Your task to perform on an android device: turn on showing notifications on the lock screen Image 0: 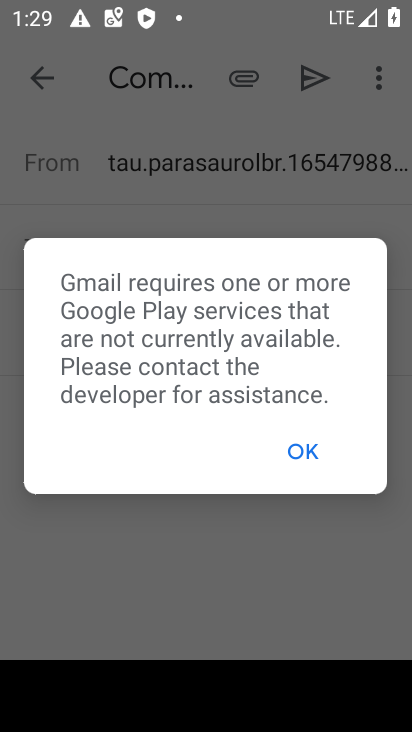
Step 0: click (295, 445)
Your task to perform on an android device: turn on showing notifications on the lock screen Image 1: 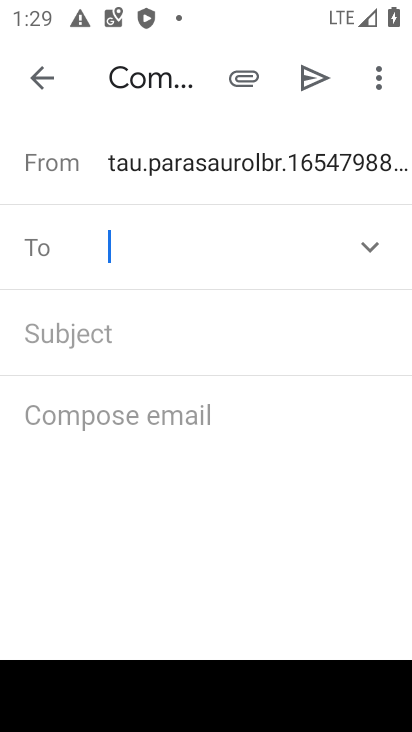
Step 1: press home button
Your task to perform on an android device: turn on showing notifications on the lock screen Image 2: 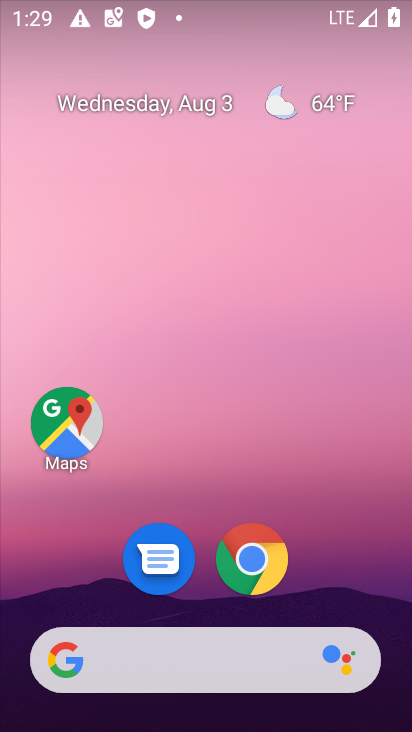
Step 2: drag from (201, 702) to (194, 16)
Your task to perform on an android device: turn on showing notifications on the lock screen Image 3: 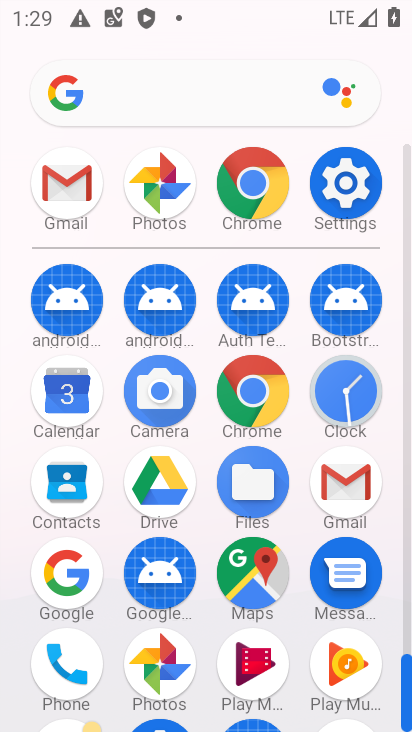
Step 3: click (355, 188)
Your task to perform on an android device: turn on showing notifications on the lock screen Image 4: 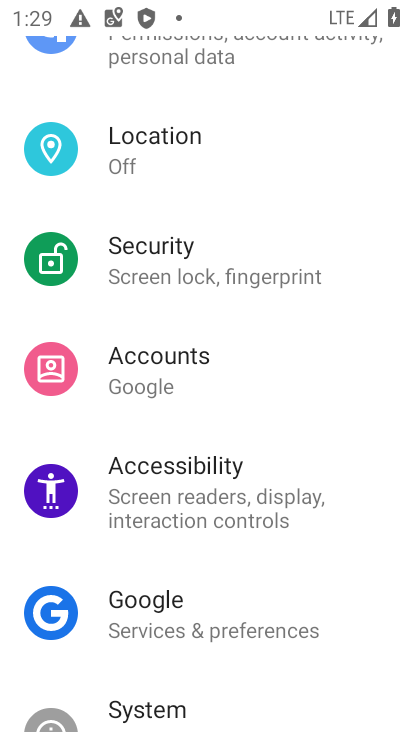
Step 4: drag from (141, 221) to (131, 577)
Your task to perform on an android device: turn on showing notifications on the lock screen Image 5: 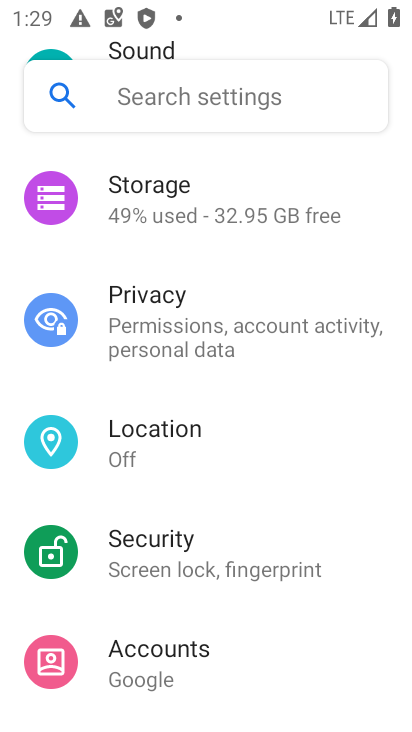
Step 5: drag from (152, 163) to (147, 615)
Your task to perform on an android device: turn on showing notifications on the lock screen Image 6: 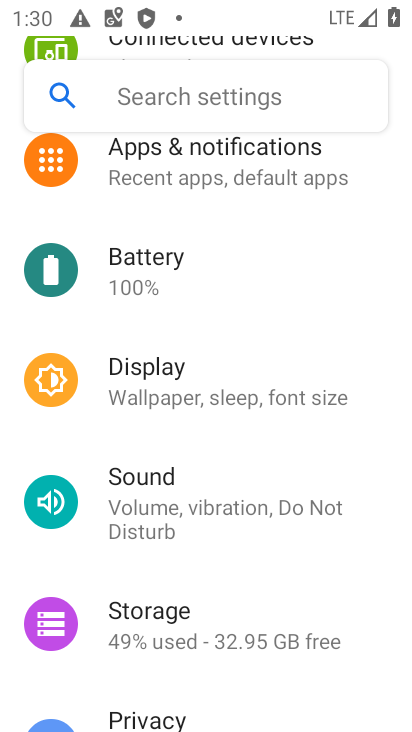
Step 6: click (205, 173)
Your task to perform on an android device: turn on showing notifications on the lock screen Image 7: 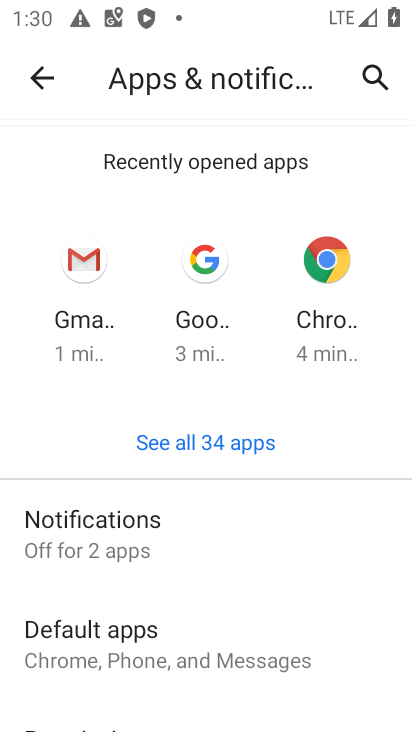
Step 7: click (108, 533)
Your task to perform on an android device: turn on showing notifications on the lock screen Image 8: 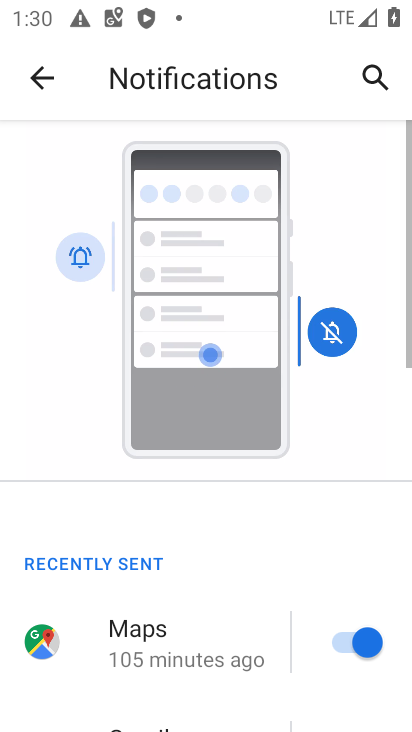
Step 8: drag from (169, 658) to (168, 233)
Your task to perform on an android device: turn on showing notifications on the lock screen Image 9: 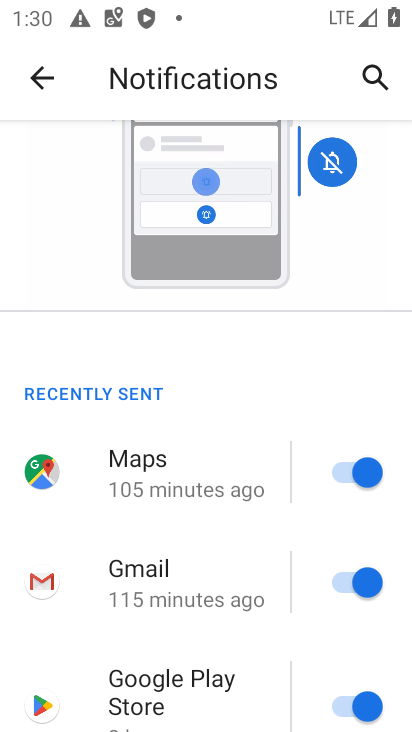
Step 9: drag from (168, 687) to (167, 388)
Your task to perform on an android device: turn on showing notifications on the lock screen Image 10: 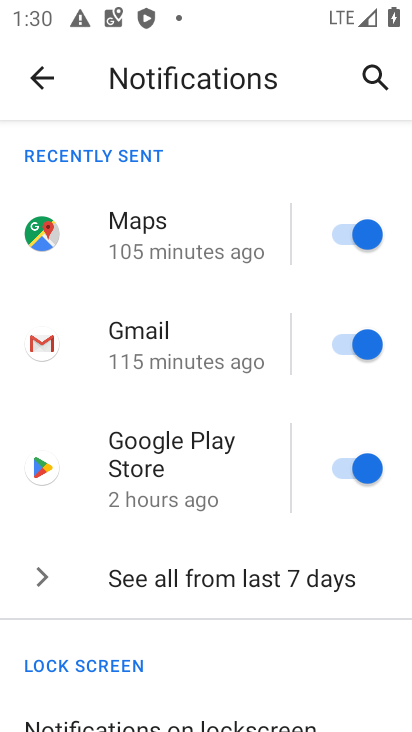
Step 10: drag from (215, 641) to (201, 304)
Your task to perform on an android device: turn on showing notifications on the lock screen Image 11: 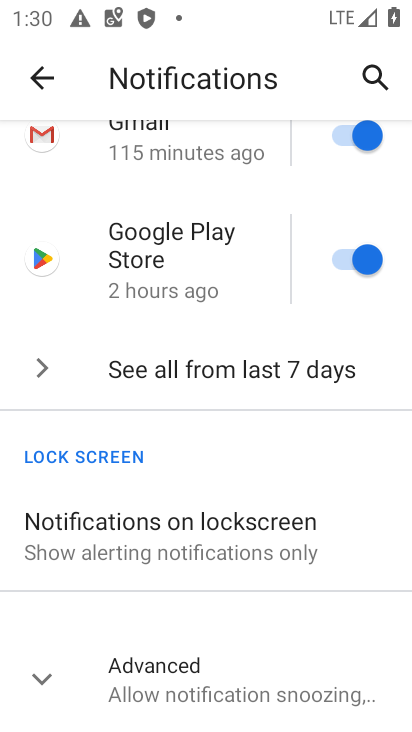
Step 11: click (120, 545)
Your task to perform on an android device: turn on showing notifications on the lock screen Image 12: 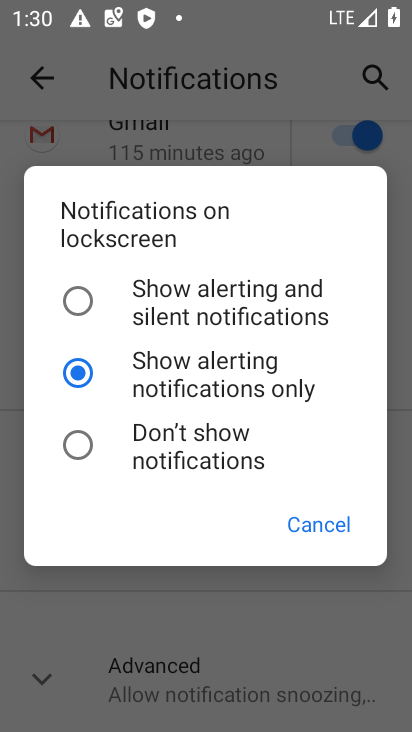
Step 12: click (76, 298)
Your task to perform on an android device: turn on showing notifications on the lock screen Image 13: 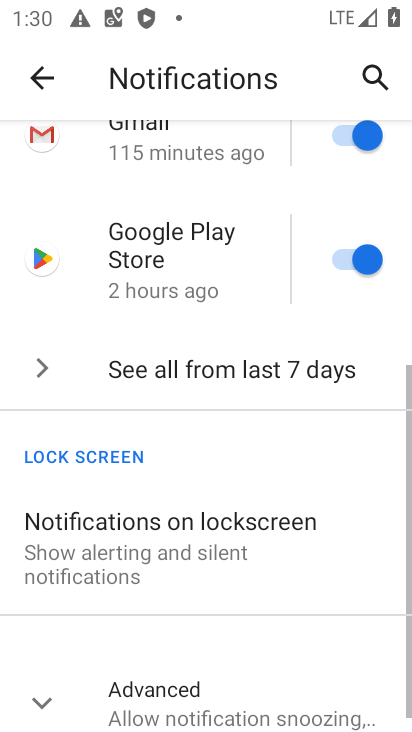
Step 13: task complete